Your task to perform on an android device: check data usage Image 0: 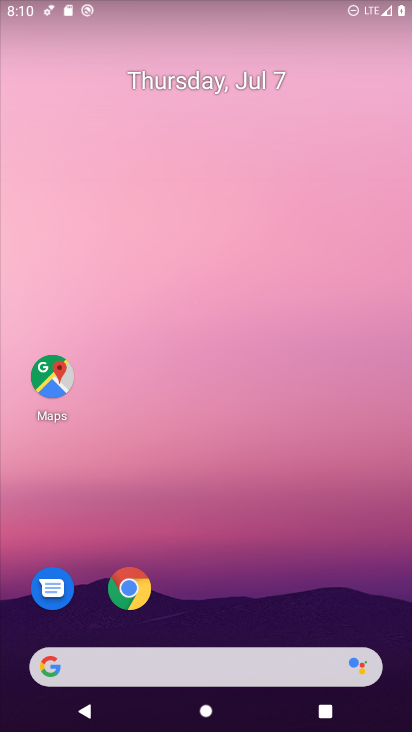
Step 0: drag from (158, 584) to (210, 229)
Your task to perform on an android device: check data usage Image 1: 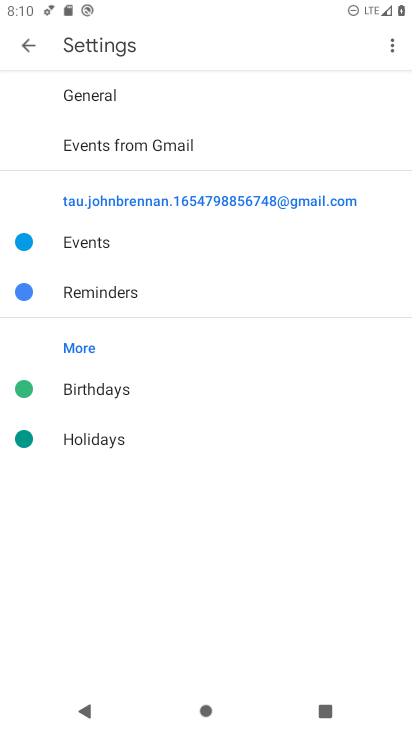
Step 1: press home button
Your task to perform on an android device: check data usage Image 2: 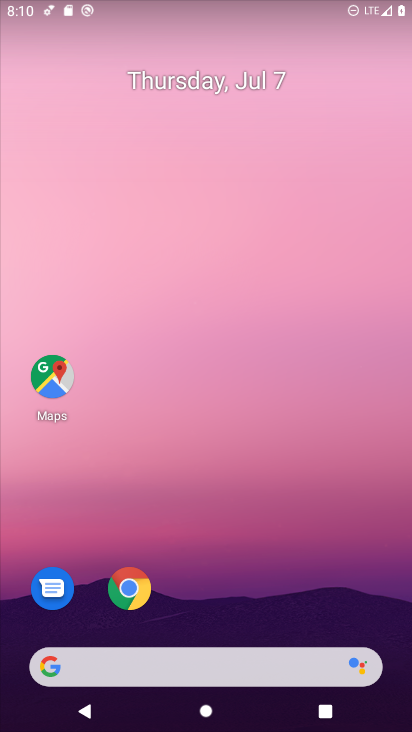
Step 2: drag from (254, 634) to (276, 250)
Your task to perform on an android device: check data usage Image 3: 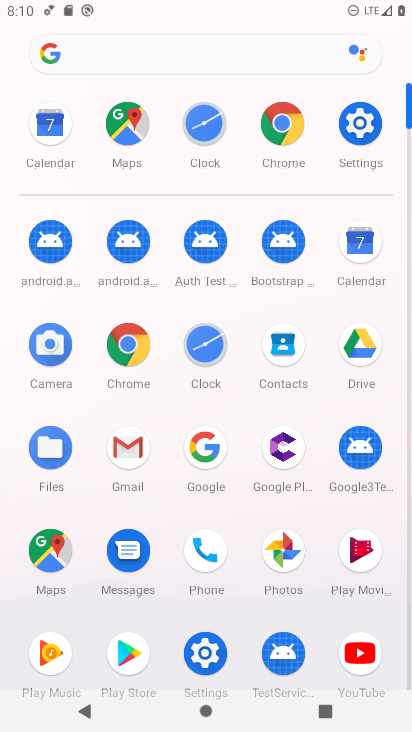
Step 3: click (347, 111)
Your task to perform on an android device: check data usage Image 4: 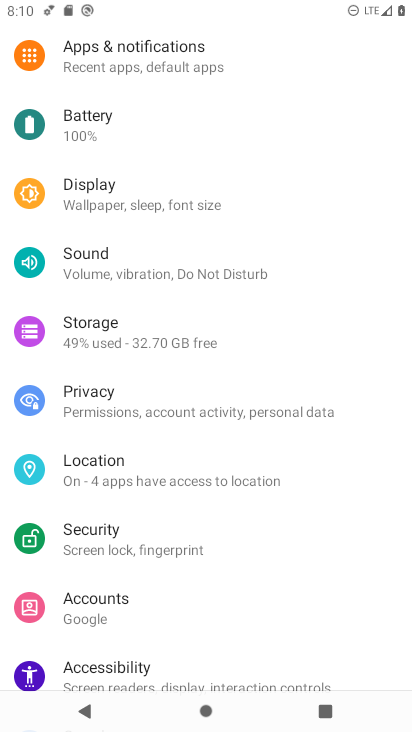
Step 4: drag from (153, 131) to (179, 498)
Your task to perform on an android device: check data usage Image 5: 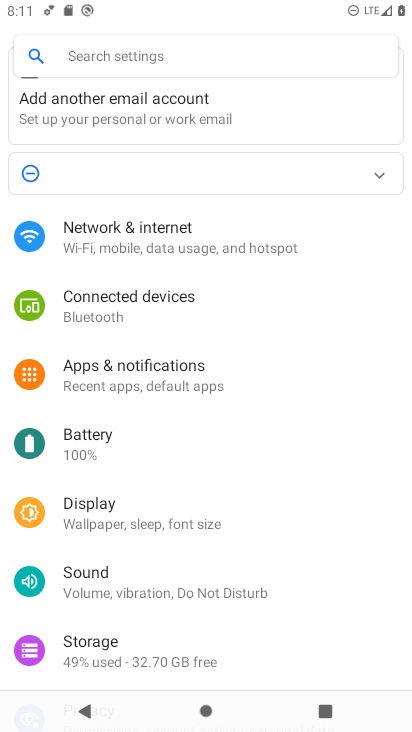
Step 5: click (154, 246)
Your task to perform on an android device: check data usage Image 6: 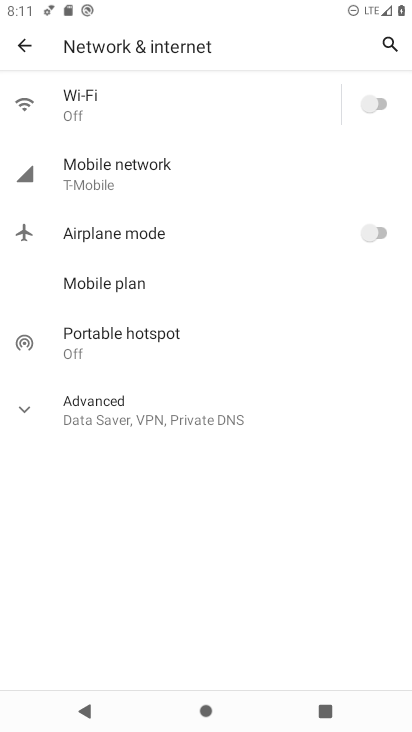
Step 6: click (147, 410)
Your task to perform on an android device: check data usage Image 7: 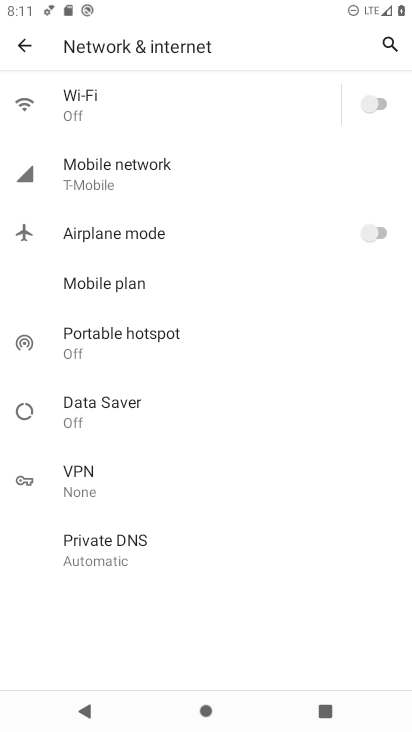
Step 7: click (154, 167)
Your task to perform on an android device: check data usage Image 8: 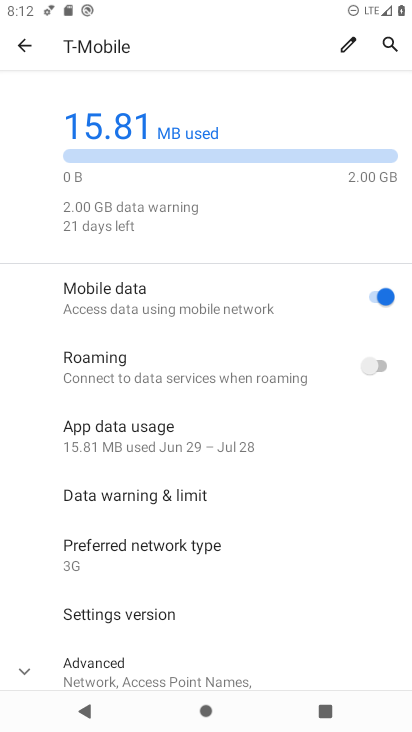
Step 8: task complete